Your task to perform on an android device: change the clock display to show seconds Image 0: 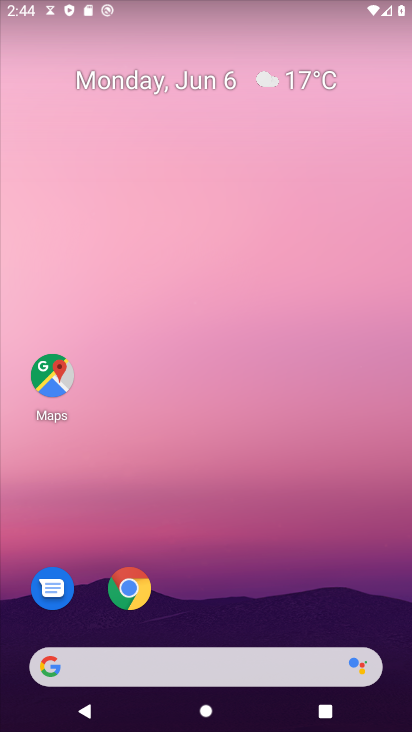
Step 0: drag from (213, 672) to (88, 30)
Your task to perform on an android device: change the clock display to show seconds Image 1: 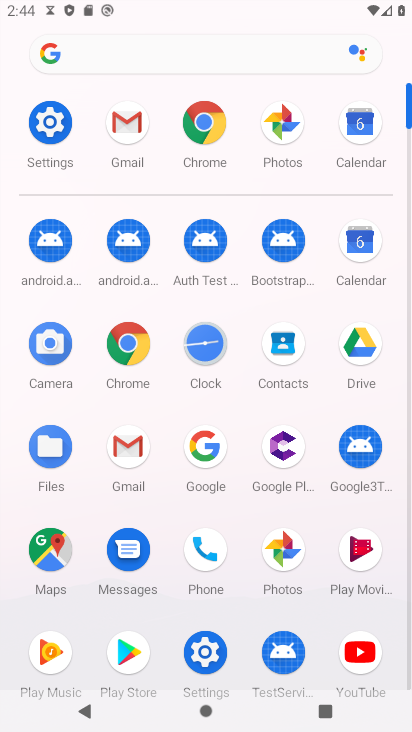
Step 1: click (209, 361)
Your task to perform on an android device: change the clock display to show seconds Image 2: 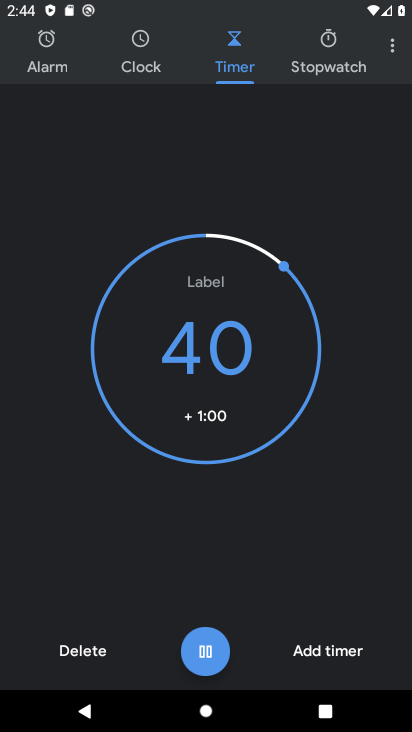
Step 2: click (399, 47)
Your task to perform on an android device: change the clock display to show seconds Image 3: 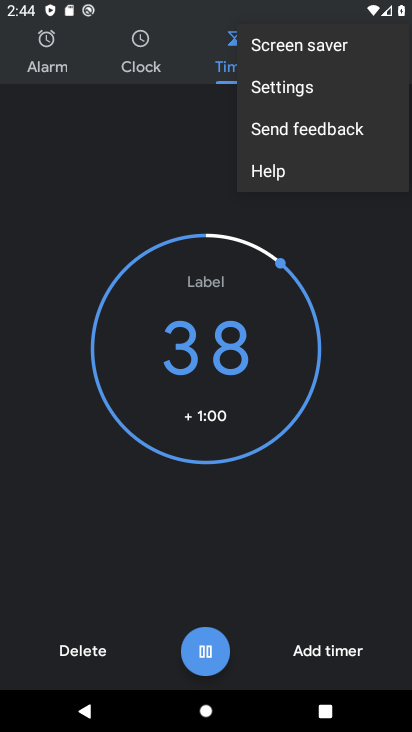
Step 3: click (309, 95)
Your task to perform on an android device: change the clock display to show seconds Image 4: 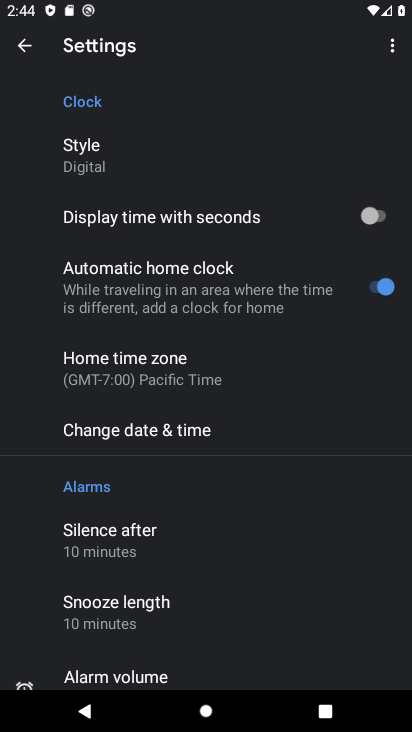
Step 4: click (378, 215)
Your task to perform on an android device: change the clock display to show seconds Image 5: 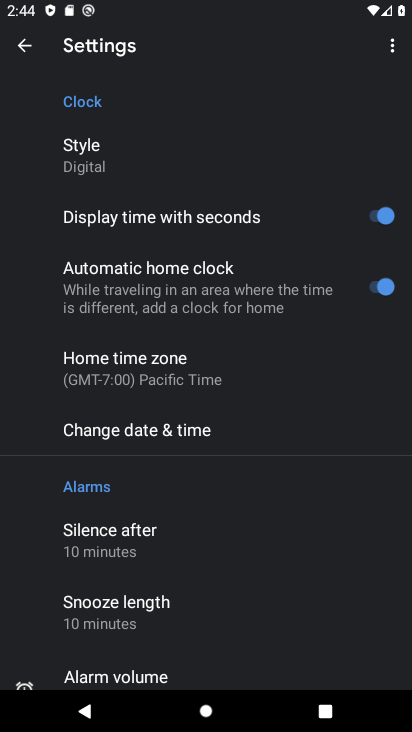
Step 5: task complete